Your task to perform on an android device: Find coffee shops on Maps Image 0: 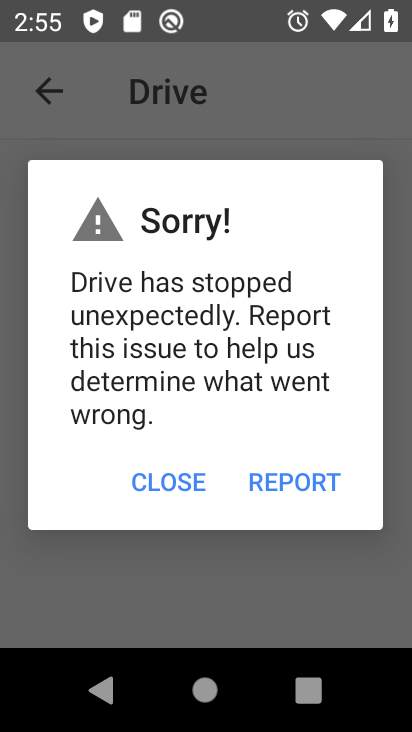
Step 0: press home button
Your task to perform on an android device: Find coffee shops on Maps Image 1: 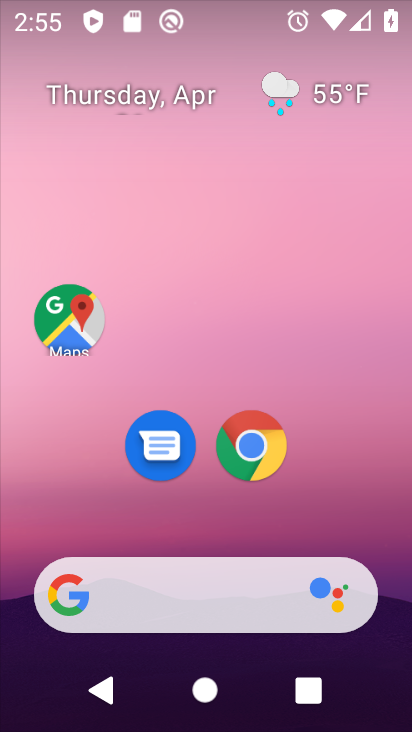
Step 1: drag from (216, 717) to (216, 113)
Your task to perform on an android device: Find coffee shops on Maps Image 2: 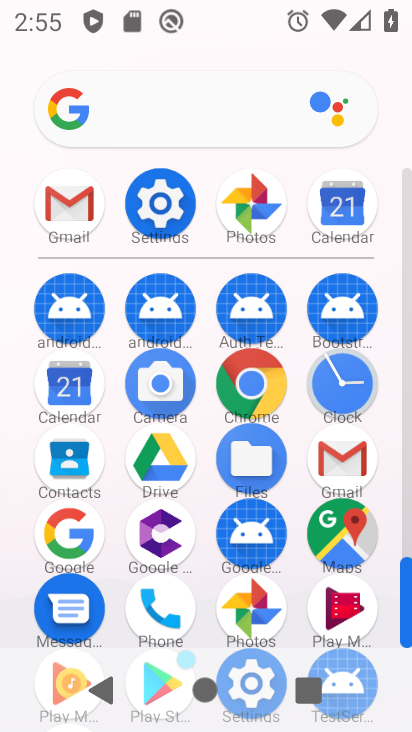
Step 2: click (344, 546)
Your task to perform on an android device: Find coffee shops on Maps Image 3: 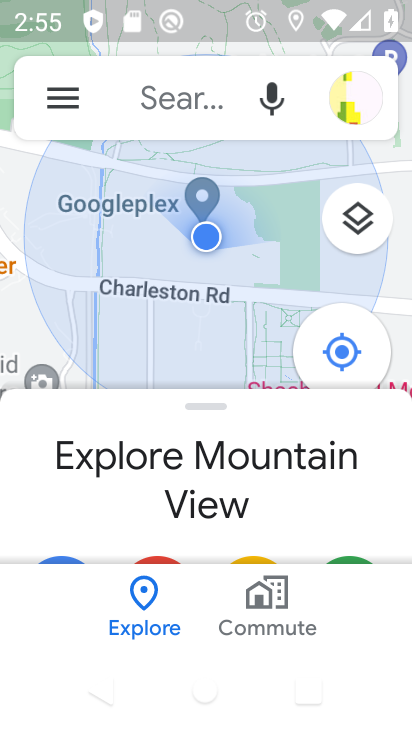
Step 3: click (165, 89)
Your task to perform on an android device: Find coffee shops on Maps Image 4: 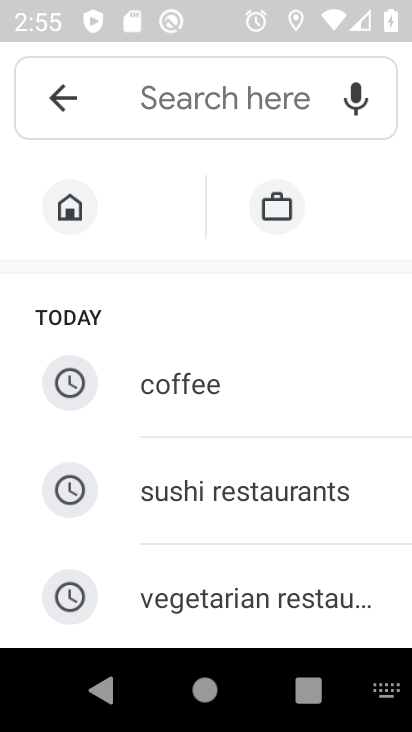
Step 4: type "coffee"
Your task to perform on an android device: Find coffee shops on Maps Image 5: 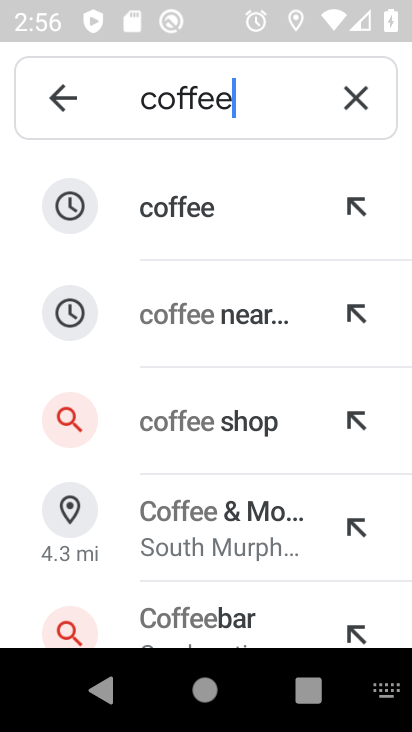
Step 5: click (165, 207)
Your task to perform on an android device: Find coffee shops on Maps Image 6: 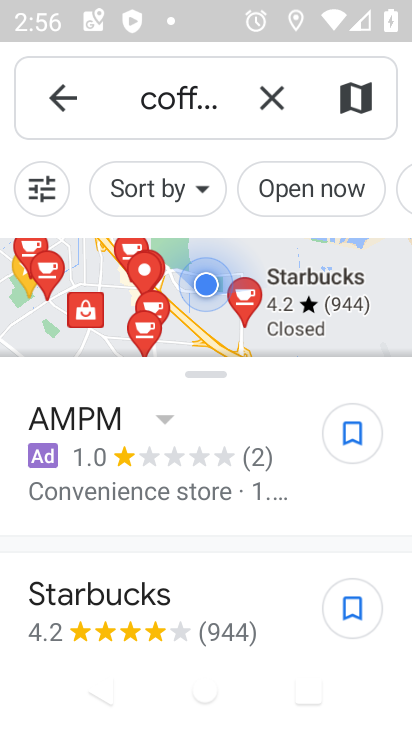
Step 6: click (192, 89)
Your task to perform on an android device: Find coffee shops on Maps Image 7: 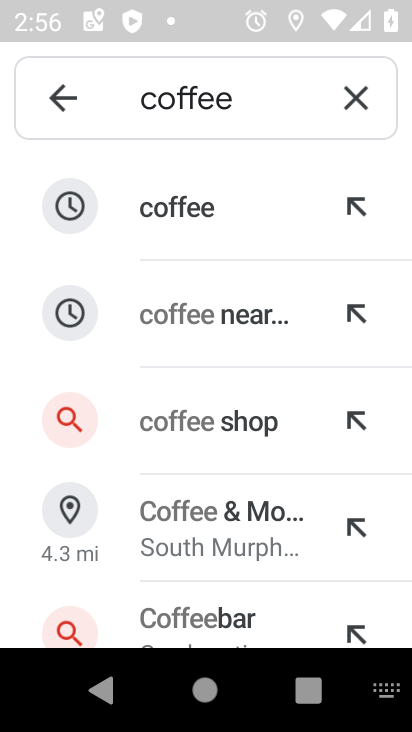
Step 7: type "shop"
Your task to perform on an android device: Find coffee shops on Maps Image 8: 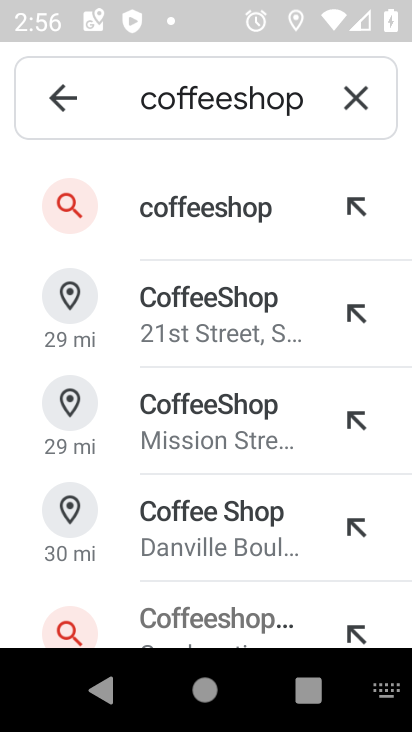
Step 8: click (222, 209)
Your task to perform on an android device: Find coffee shops on Maps Image 9: 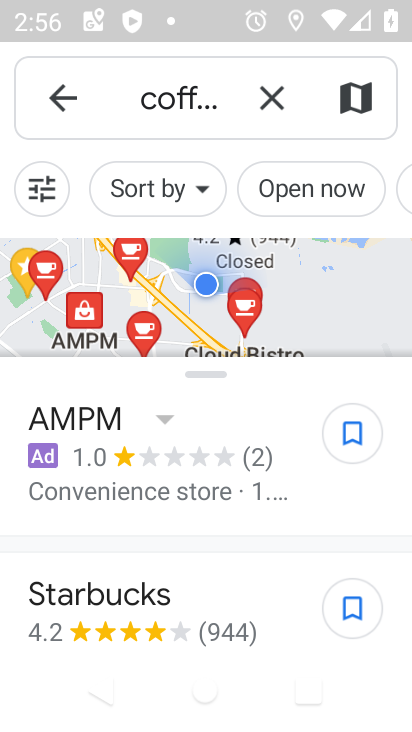
Step 9: task complete